Your task to perform on an android device: Open the calendar and show me this week's events Image 0: 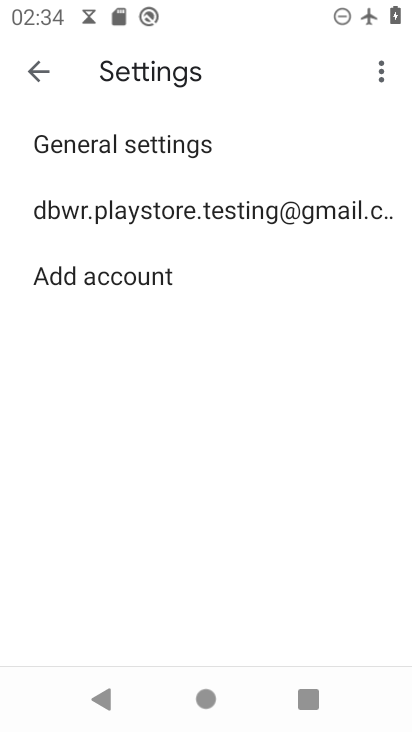
Step 0: press home button
Your task to perform on an android device: Open the calendar and show me this week's events Image 1: 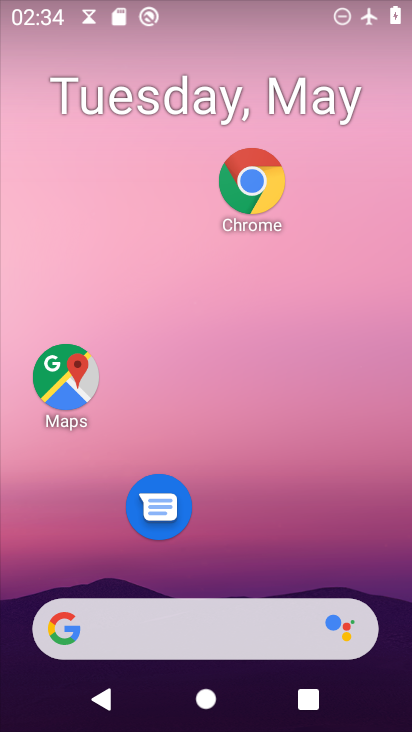
Step 1: drag from (262, 479) to (307, 166)
Your task to perform on an android device: Open the calendar and show me this week's events Image 2: 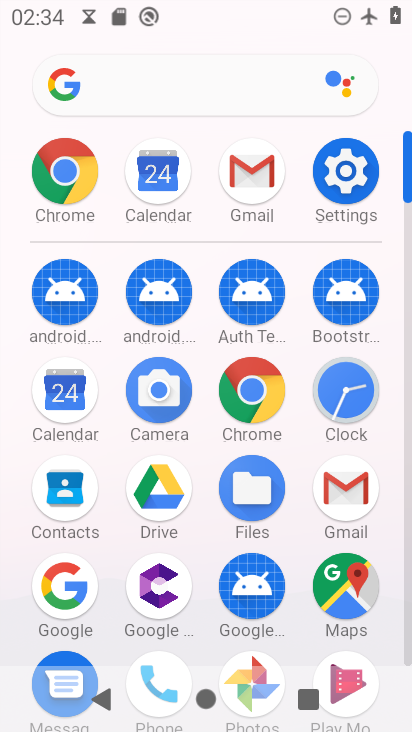
Step 2: click (67, 392)
Your task to perform on an android device: Open the calendar and show me this week's events Image 3: 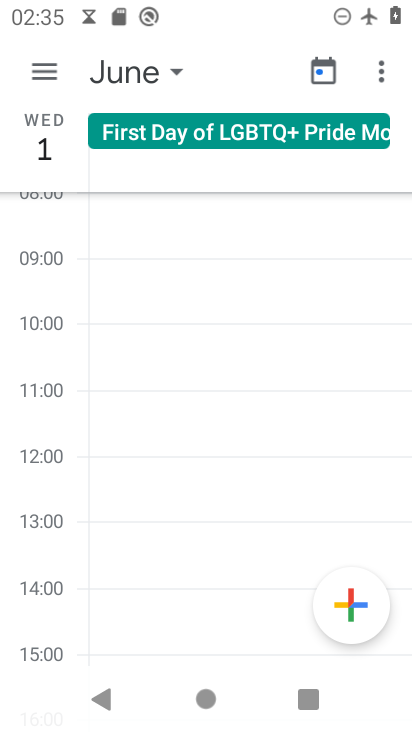
Step 3: click (55, 76)
Your task to perform on an android device: Open the calendar and show me this week's events Image 4: 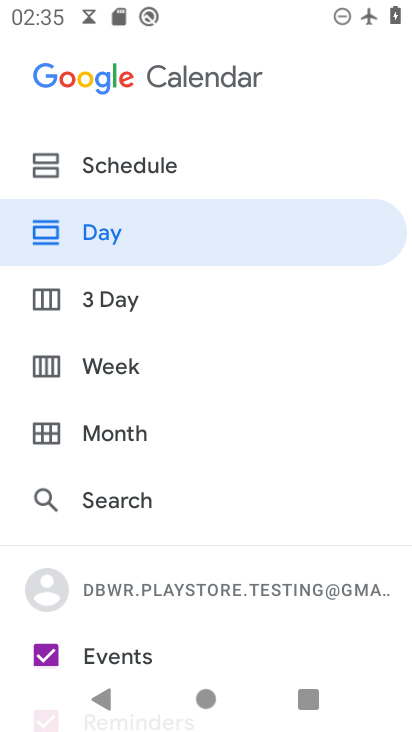
Step 4: click (151, 432)
Your task to perform on an android device: Open the calendar and show me this week's events Image 5: 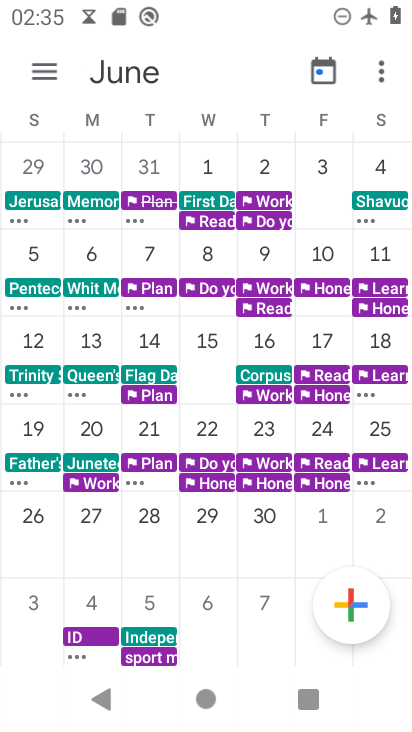
Step 5: click (44, 60)
Your task to perform on an android device: Open the calendar and show me this week's events Image 6: 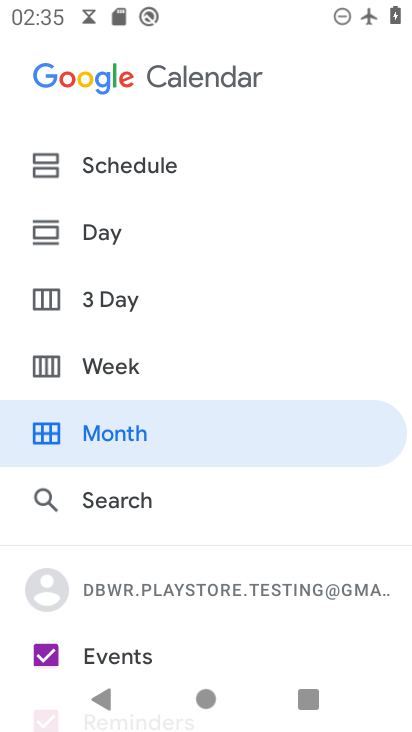
Step 6: click (125, 370)
Your task to perform on an android device: Open the calendar and show me this week's events Image 7: 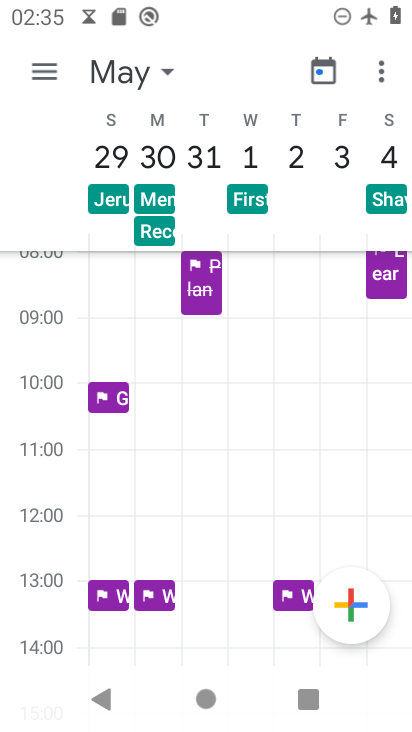
Step 7: task complete